Your task to perform on an android device: manage bookmarks in the chrome app Image 0: 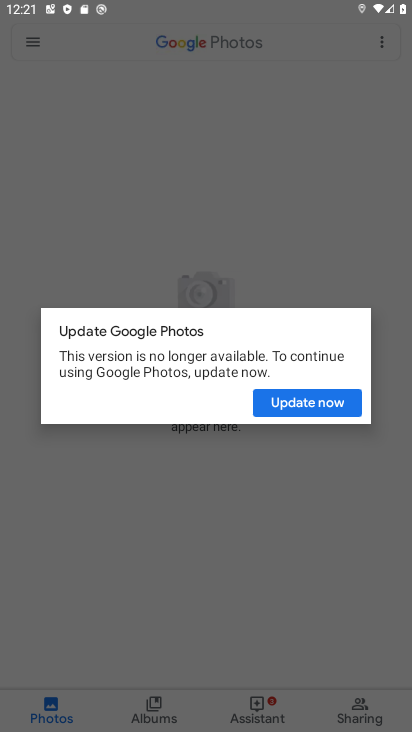
Step 0: press home button
Your task to perform on an android device: manage bookmarks in the chrome app Image 1: 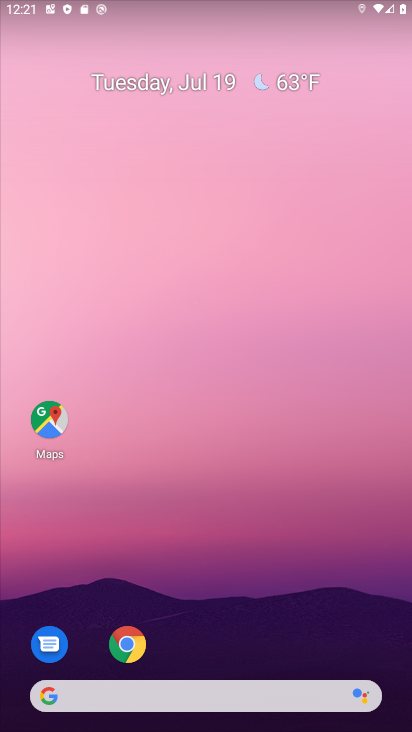
Step 1: drag from (237, 725) to (229, 265)
Your task to perform on an android device: manage bookmarks in the chrome app Image 2: 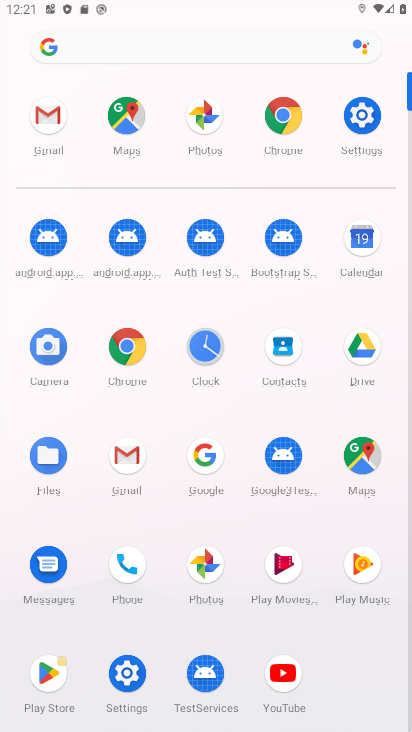
Step 2: click (127, 344)
Your task to perform on an android device: manage bookmarks in the chrome app Image 3: 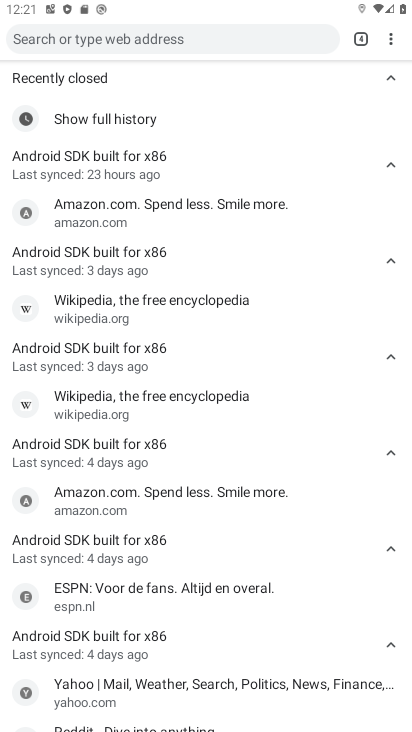
Step 3: click (389, 42)
Your task to perform on an android device: manage bookmarks in the chrome app Image 4: 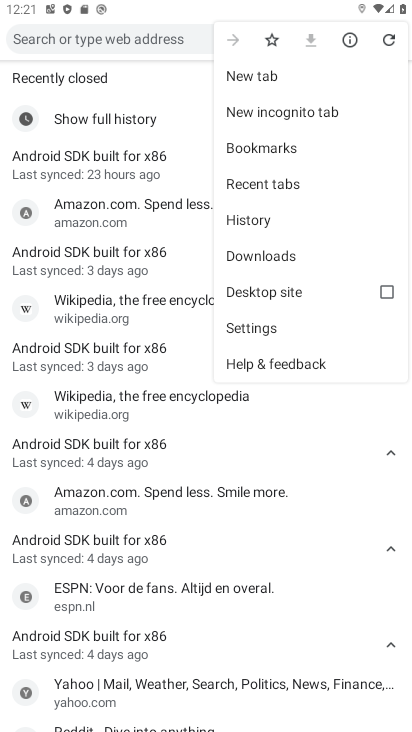
Step 4: click (272, 146)
Your task to perform on an android device: manage bookmarks in the chrome app Image 5: 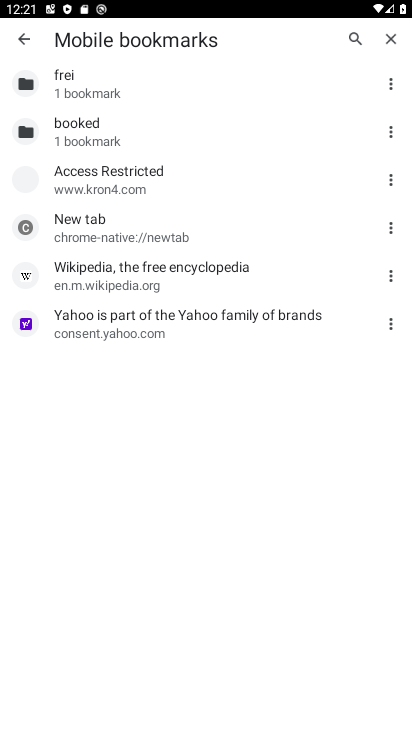
Step 5: click (390, 323)
Your task to perform on an android device: manage bookmarks in the chrome app Image 6: 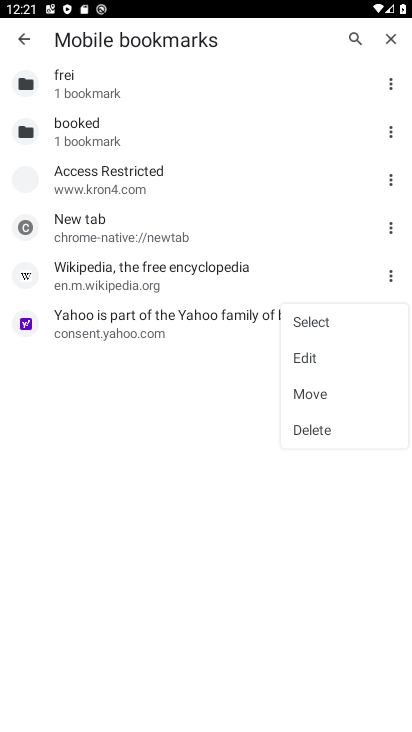
Step 6: click (310, 359)
Your task to perform on an android device: manage bookmarks in the chrome app Image 7: 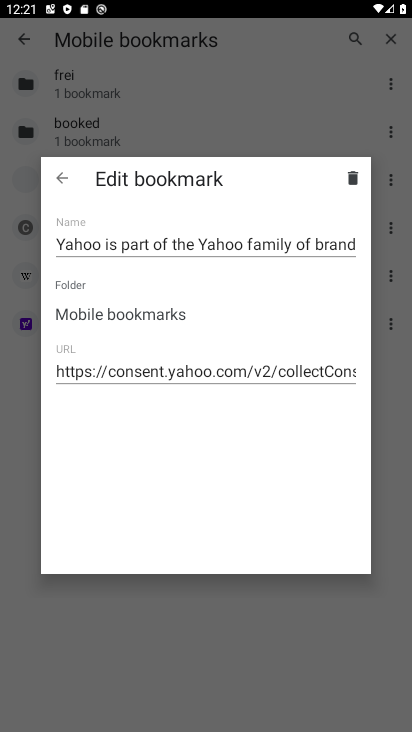
Step 7: click (190, 243)
Your task to perform on an android device: manage bookmarks in the chrome app Image 8: 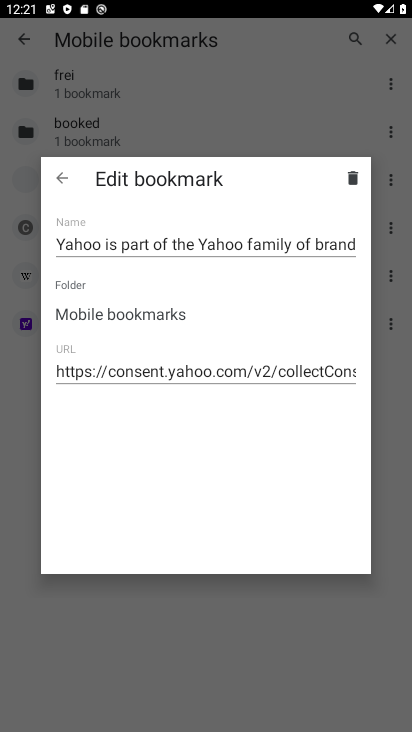
Step 8: click (190, 243)
Your task to perform on an android device: manage bookmarks in the chrome app Image 9: 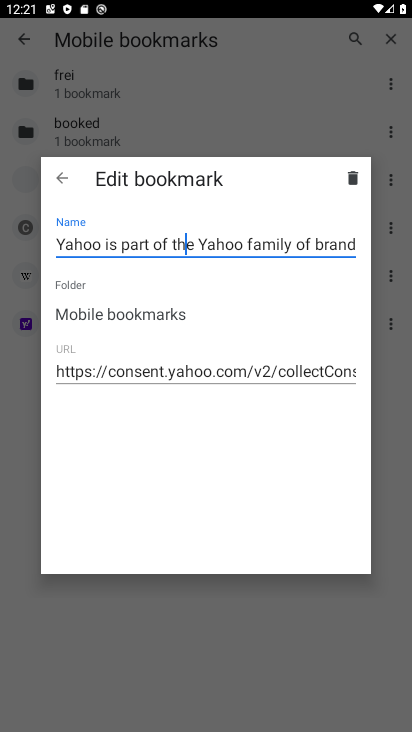
Step 9: click (190, 243)
Your task to perform on an android device: manage bookmarks in the chrome app Image 10: 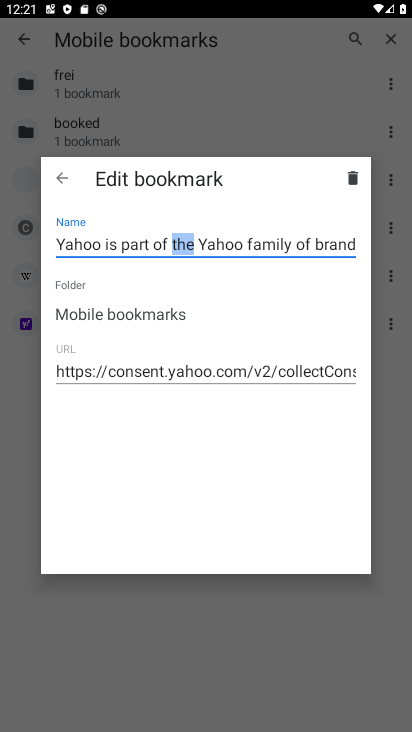
Step 10: click (190, 243)
Your task to perform on an android device: manage bookmarks in the chrome app Image 11: 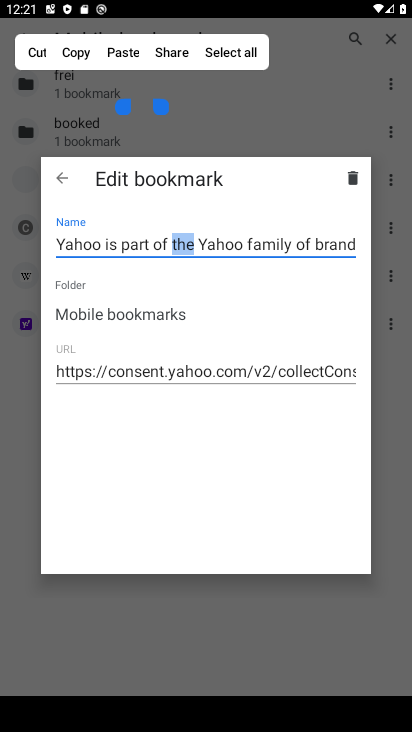
Step 11: click (40, 53)
Your task to perform on an android device: manage bookmarks in the chrome app Image 12: 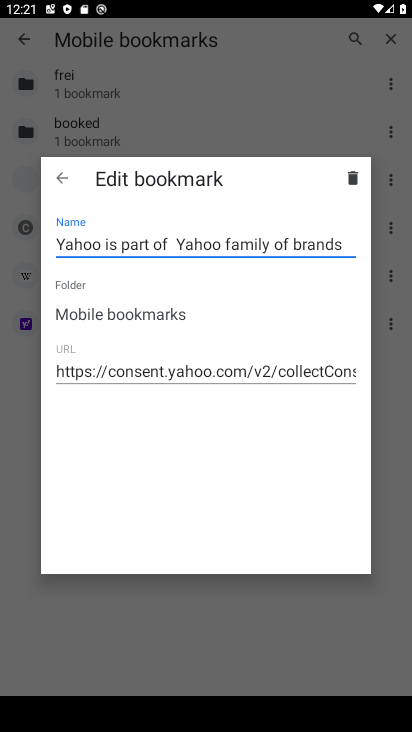
Step 12: click (107, 240)
Your task to perform on an android device: manage bookmarks in the chrome app Image 13: 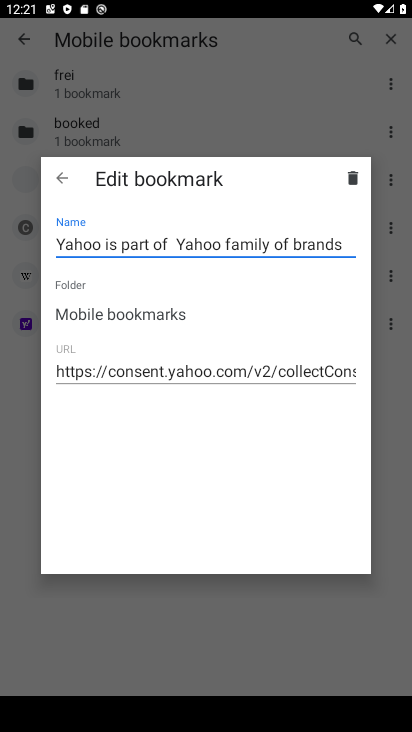
Step 13: click (107, 240)
Your task to perform on an android device: manage bookmarks in the chrome app Image 14: 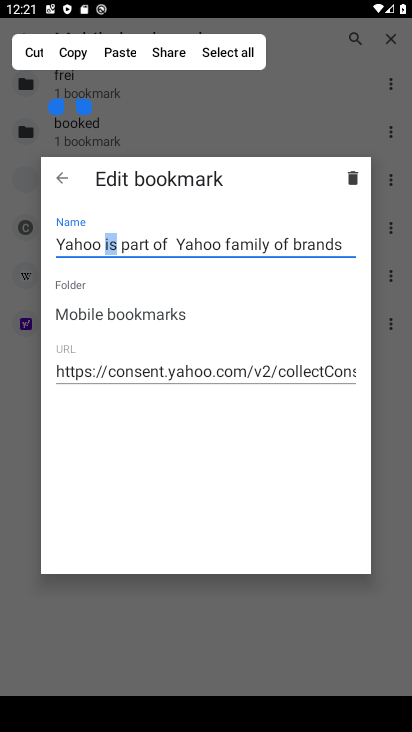
Step 14: click (39, 50)
Your task to perform on an android device: manage bookmarks in the chrome app Image 15: 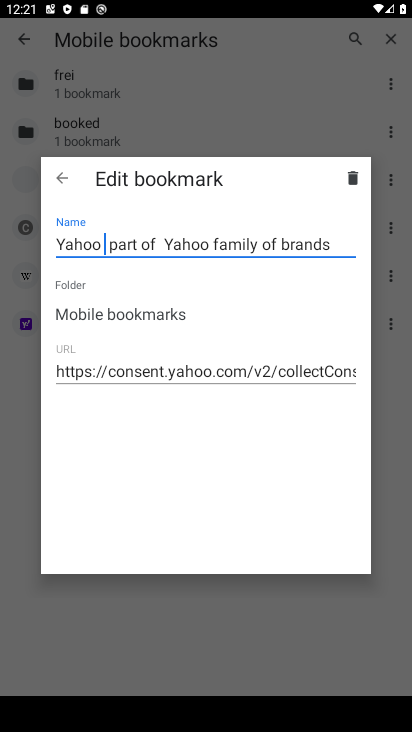
Step 15: click (61, 179)
Your task to perform on an android device: manage bookmarks in the chrome app Image 16: 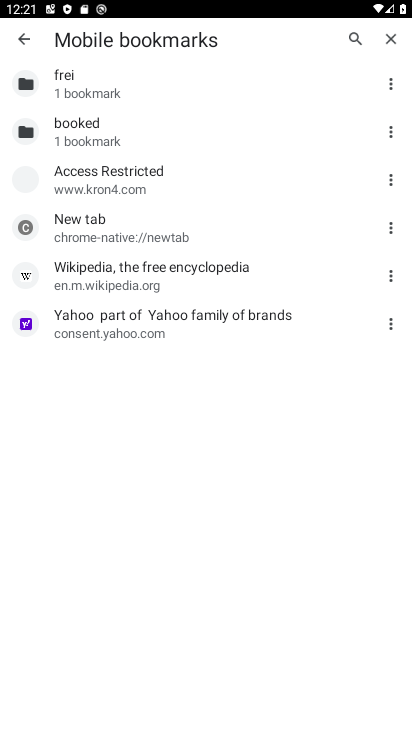
Step 16: task complete